Your task to perform on an android device: Check the weather Image 0: 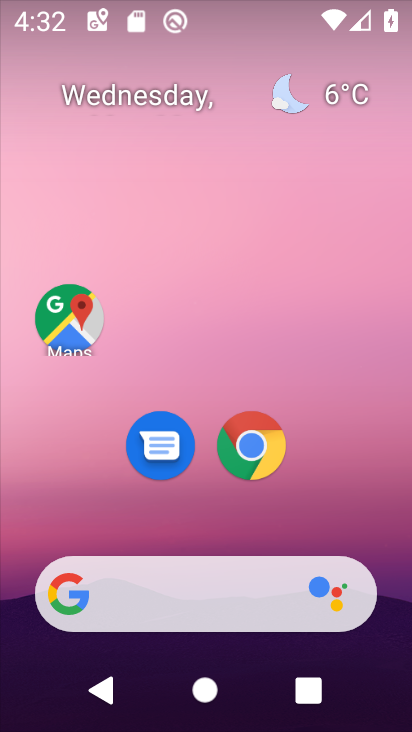
Step 0: click (301, 119)
Your task to perform on an android device: Check the weather Image 1: 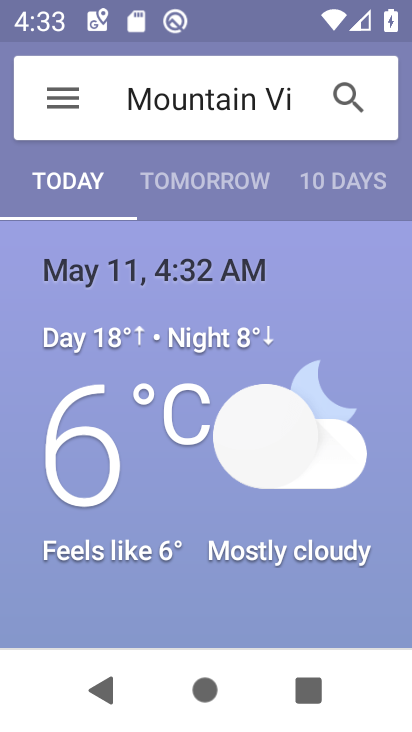
Step 1: task complete